Your task to perform on an android device: open app "Pinterest" (install if not already installed), go to login, and select forgot password Image 0: 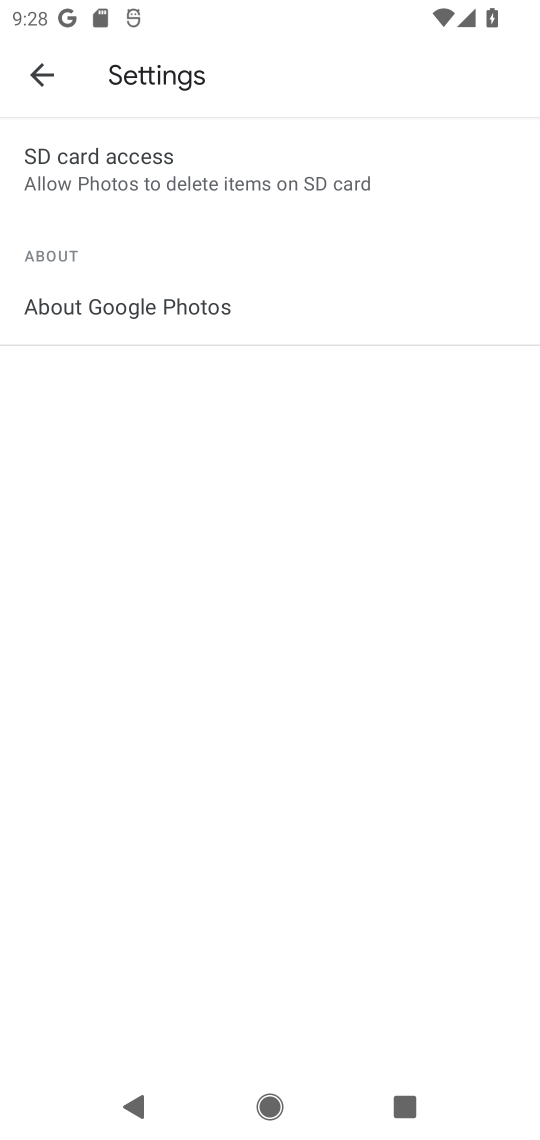
Step 0: click (43, 64)
Your task to perform on an android device: open app "Pinterest" (install if not already installed), go to login, and select forgot password Image 1: 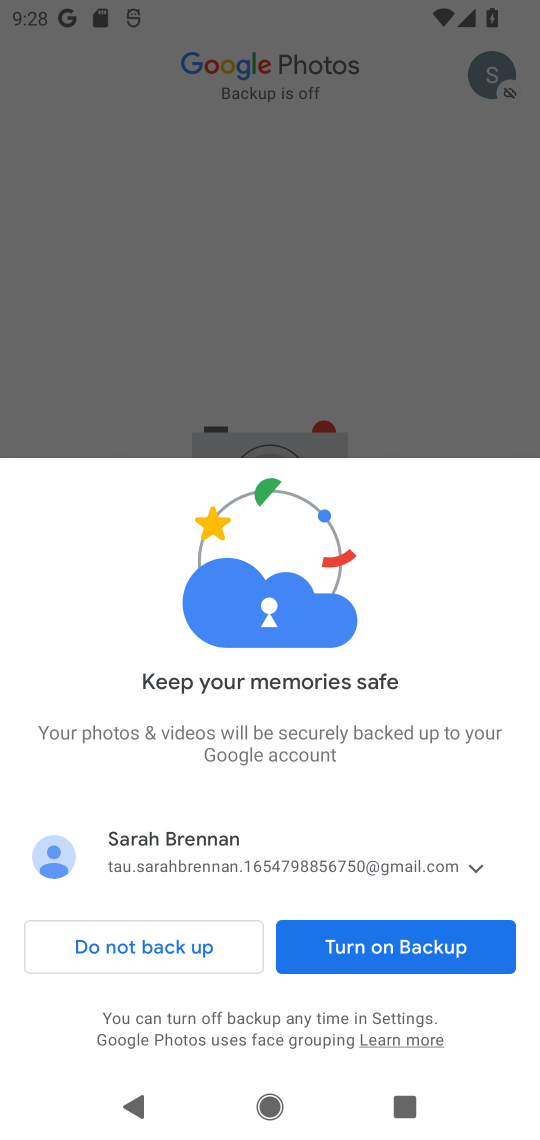
Step 1: press back button
Your task to perform on an android device: open app "Pinterest" (install if not already installed), go to login, and select forgot password Image 2: 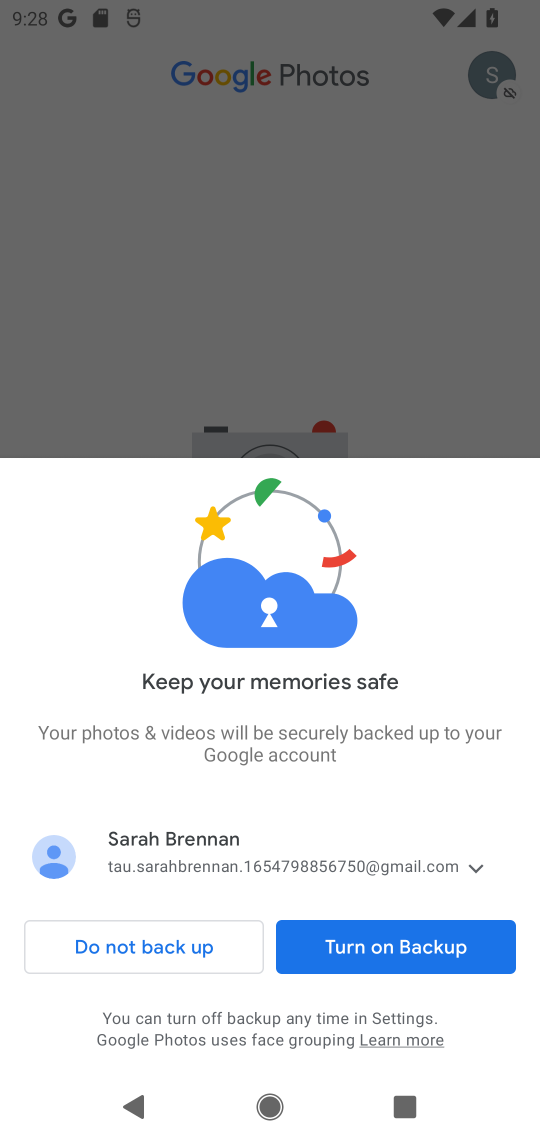
Step 2: press home button
Your task to perform on an android device: open app "Pinterest" (install if not already installed), go to login, and select forgot password Image 3: 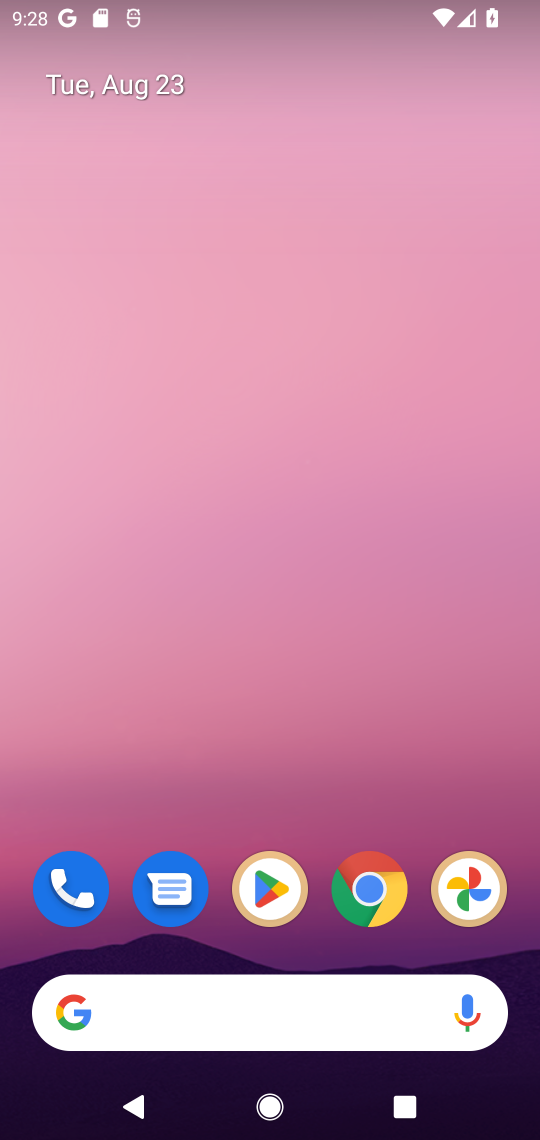
Step 3: click (259, 879)
Your task to perform on an android device: open app "Pinterest" (install if not already installed), go to login, and select forgot password Image 4: 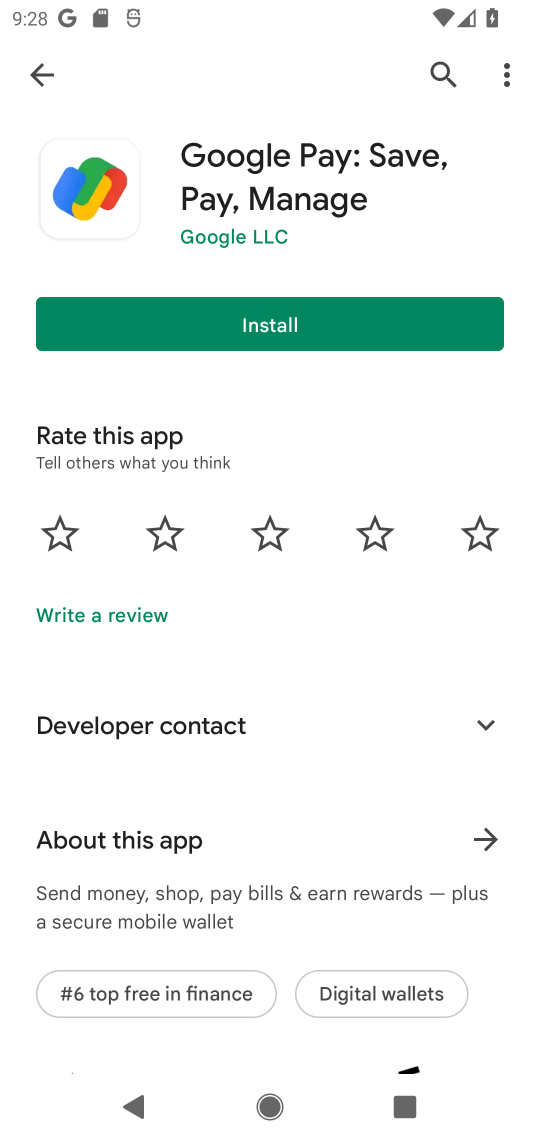
Step 4: click (38, 72)
Your task to perform on an android device: open app "Pinterest" (install if not already installed), go to login, and select forgot password Image 5: 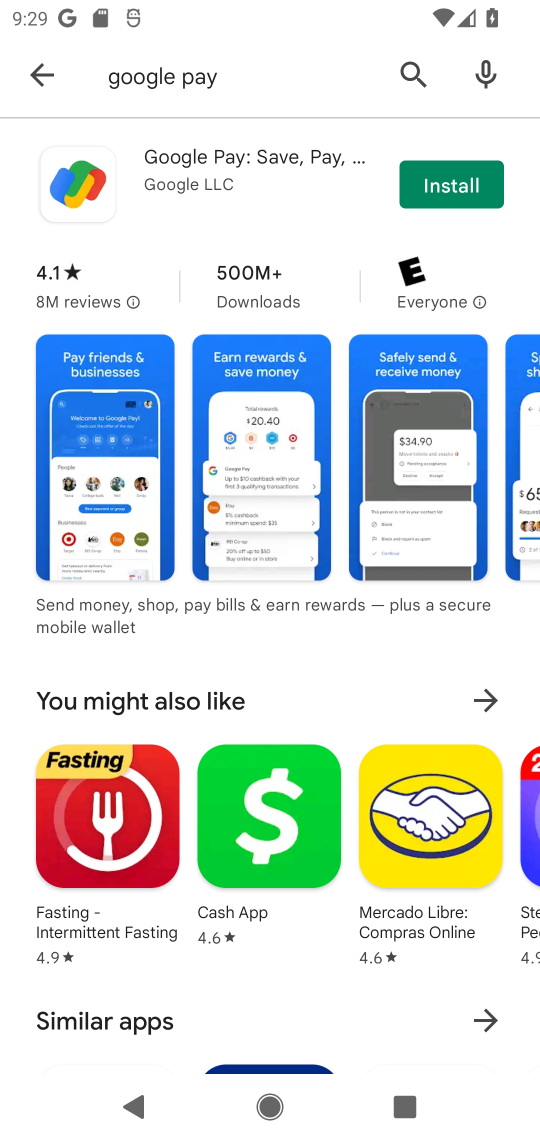
Step 5: click (30, 72)
Your task to perform on an android device: open app "Pinterest" (install if not already installed), go to login, and select forgot password Image 6: 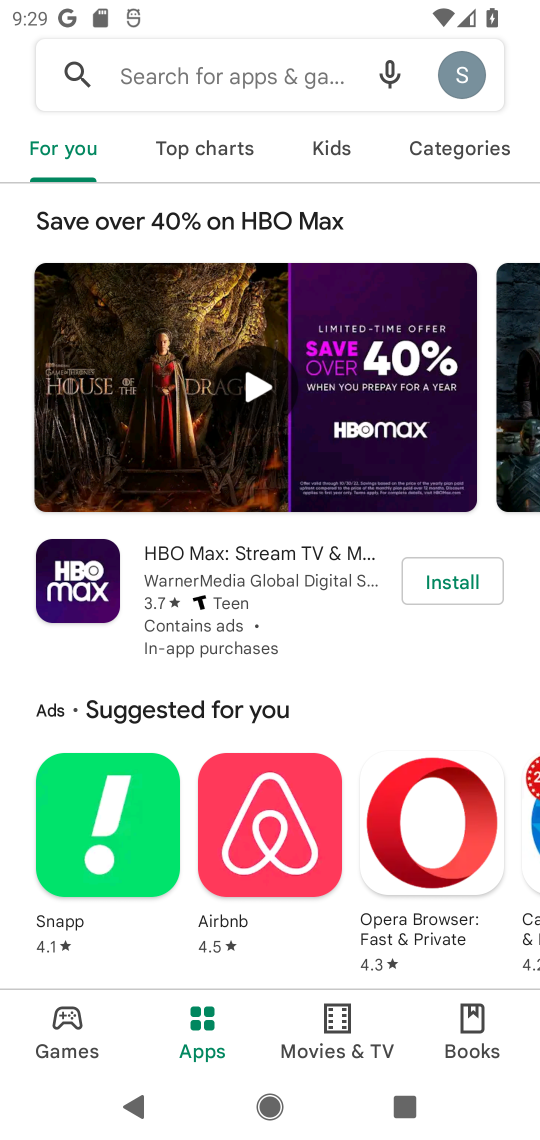
Step 6: click (167, 72)
Your task to perform on an android device: open app "Pinterest" (install if not already installed), go to login, and select forgot password Image 7: 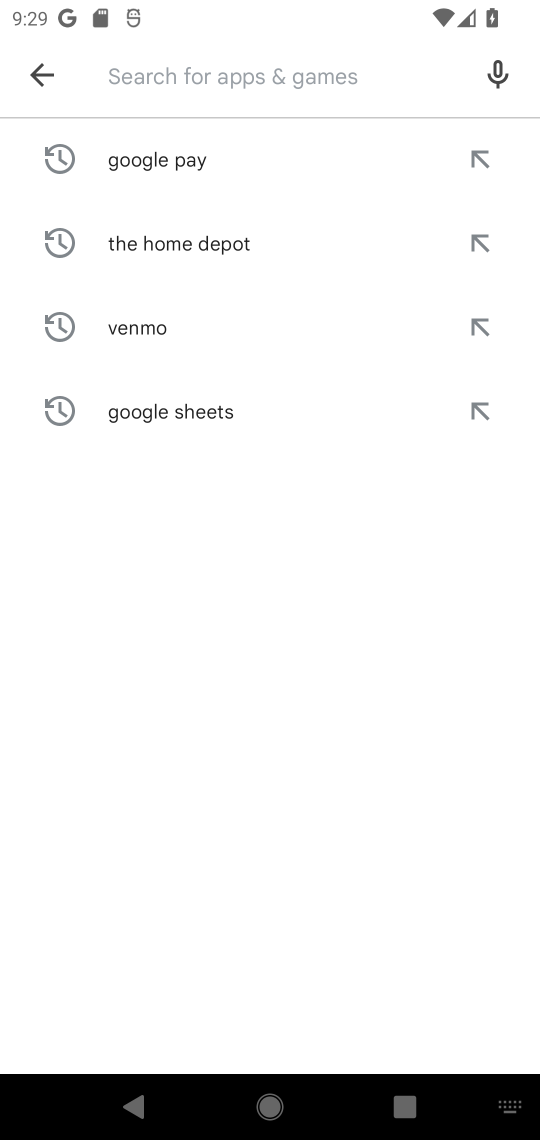
Step 7: type "Pinterest"
Your task to perform on an android device: open app "Pinterest" (install if not already installed), go to login, and select forgot password Image 8: 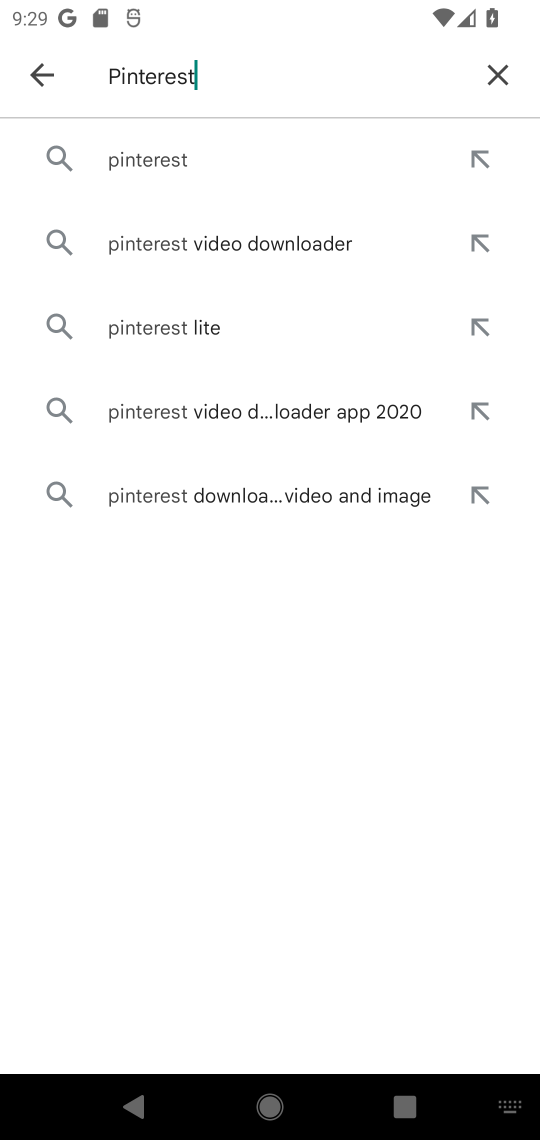
Step 8: click (144, 167)
Your task to perform on an android device: open app "Pinterest" (install if not already installed), go to login, and select forgot password Image 9: 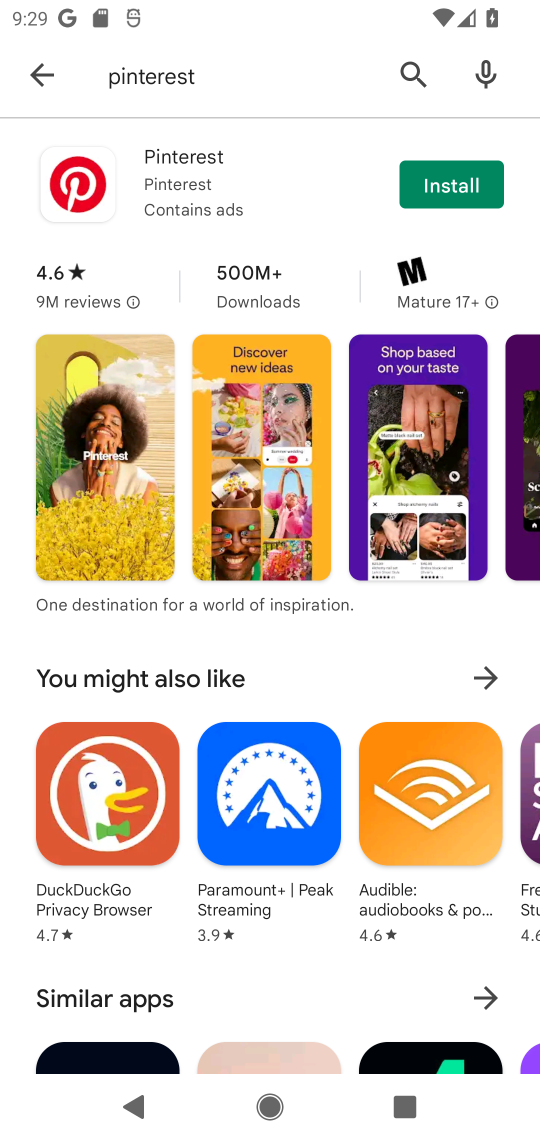
Step 9: click (425, 184)
Your task to perform on an android device: open app "Pinterest" (install if not already installed), go to login, and select forgot password Image 10: 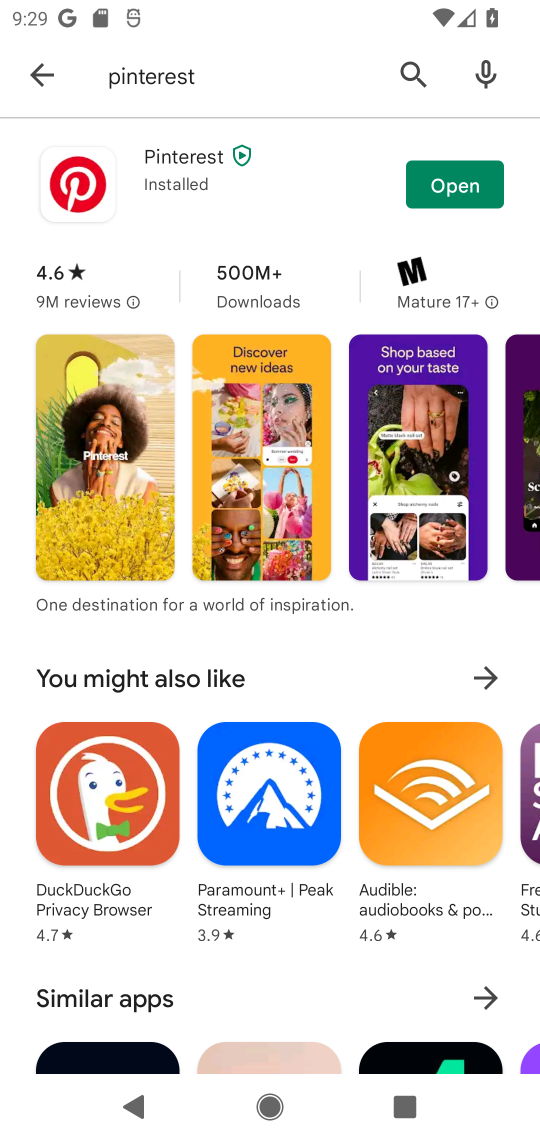
Step 10: click (450, 184)
Your task to perform on an android device: open app "Pinterest" (install if not already installed), go to login, and select forgot password Image 11: 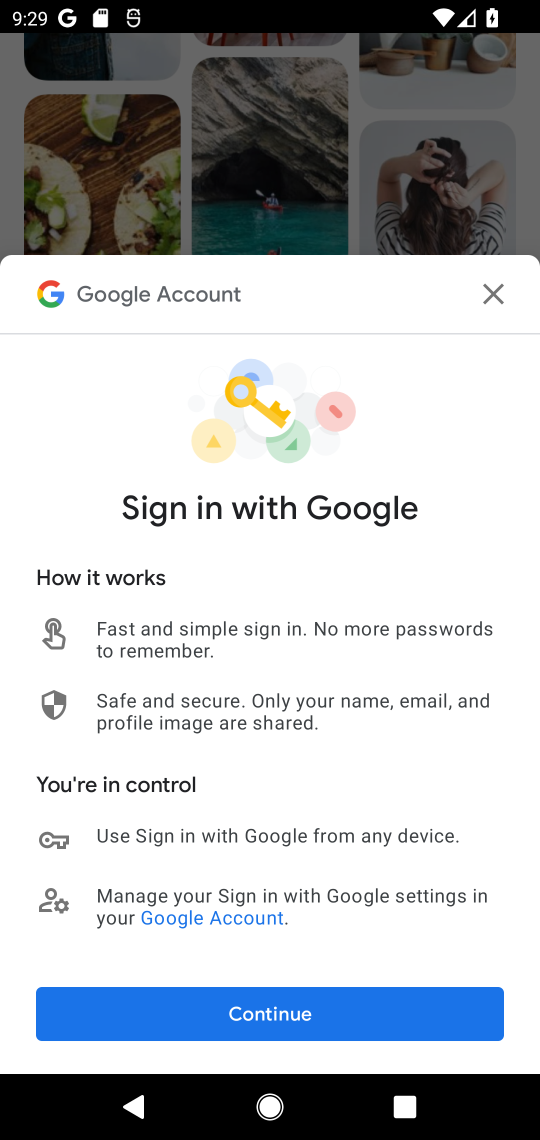
Step 11: click (251, 1030)
Your task to perform on an android device: open app "Pinterest" (install if not already installed), go to login, and select forgot password Image 12: 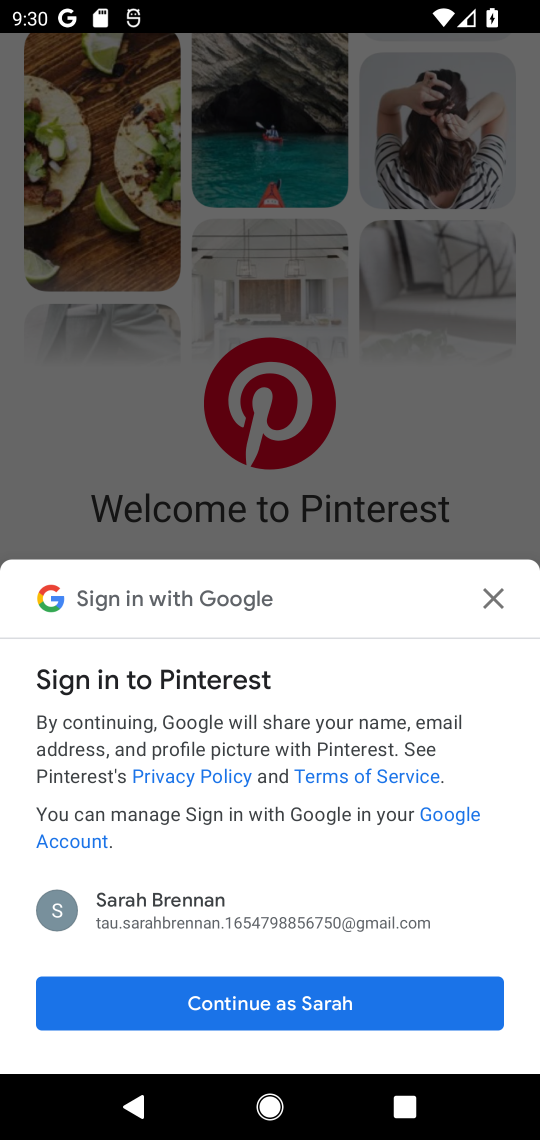
Step 12: task complete